Your task to perform on an android device: turn off picture-in-picture Image 0: 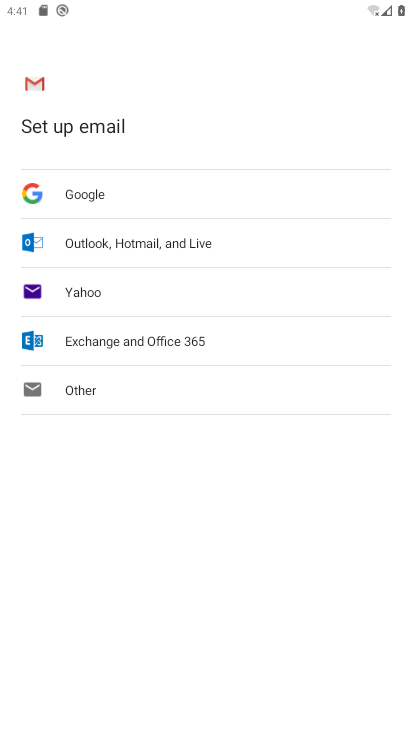
Step 0: press home button
Your task to perform on an android device: turn off picture-in-picture Image 1: 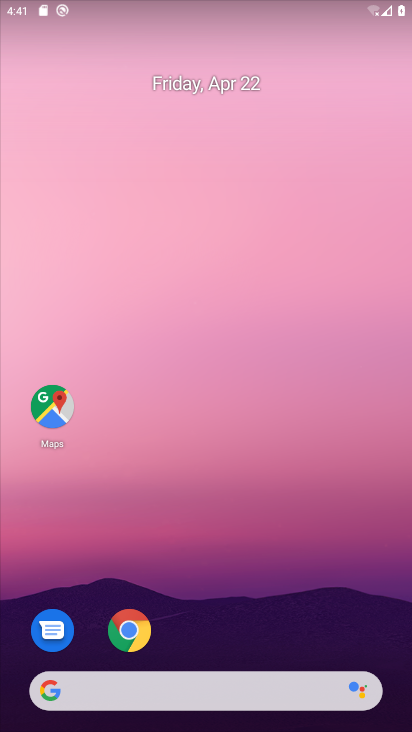
Step 1: click (114, 636)
Your task to perform on an android device: turn off picture-in-picture Image 2: 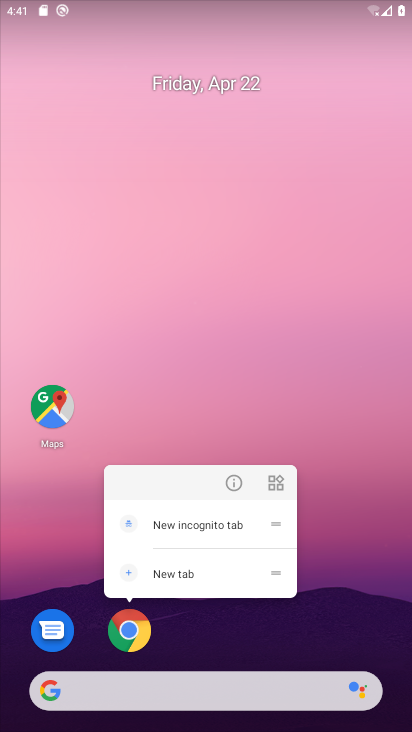
Step 2: click (233, 478)
Your task to perform on an android device: turn off picture-in-picture Image 3: 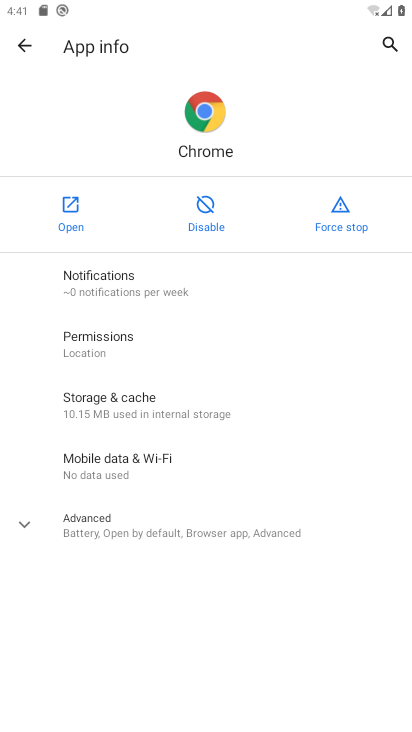
Step 3: click (139, 531)
Your task to perform on an android device: turn off picture-in-picture Image 4: 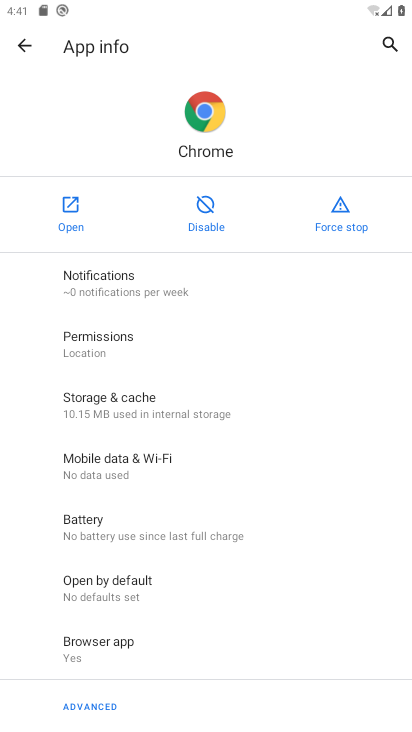
Step 4: drag from (177, 661) to (235, 273)
Your task to perform on an android device: turn off picture-in-picture Image 5: 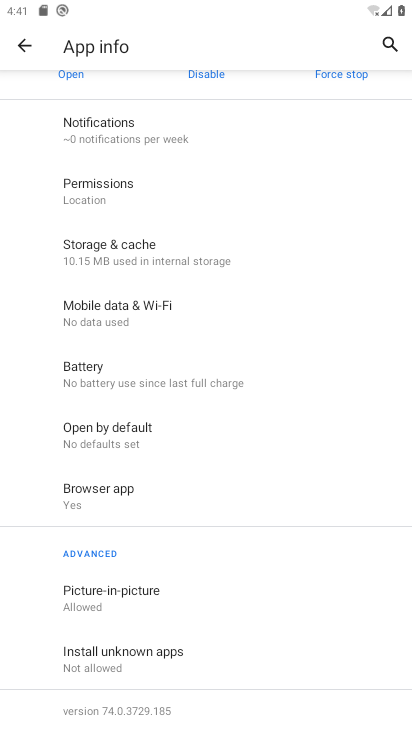
Step 5: click (147, 610)
Your task to perform on an android device: turn off picture-in-picture Image 6: 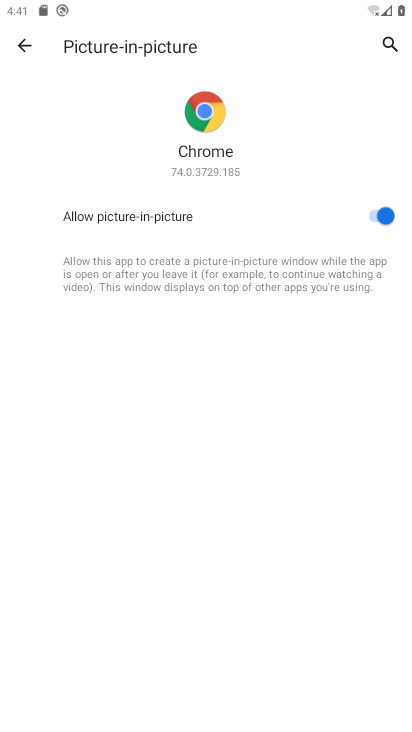
Step 6: click (368, 213)
Your task to perform on an android device: turn off picture-in-picture Image 7: 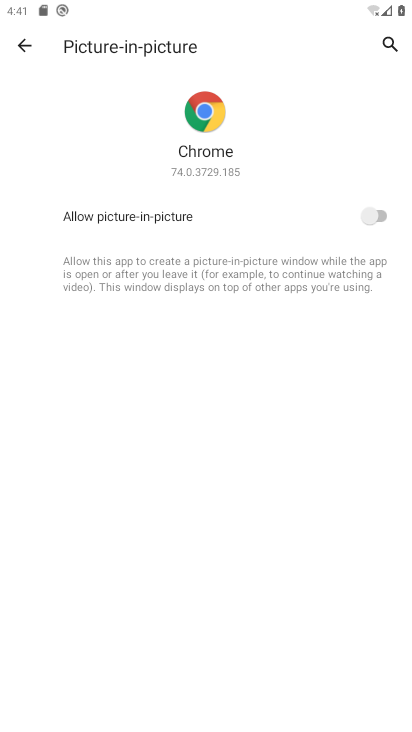
Step 7: task complete